Your task to perform on an android device: clear all cookies in the chrome app Image 0: 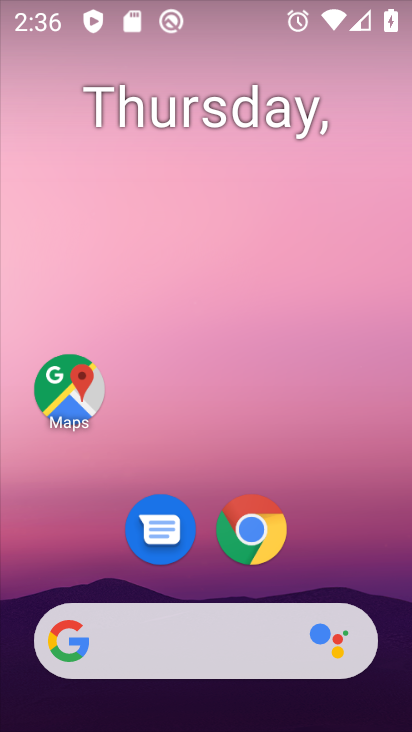
Step 0: click (237, 535)
Your task to perform on an android device: clear all cookies in the chrome app Image 1: 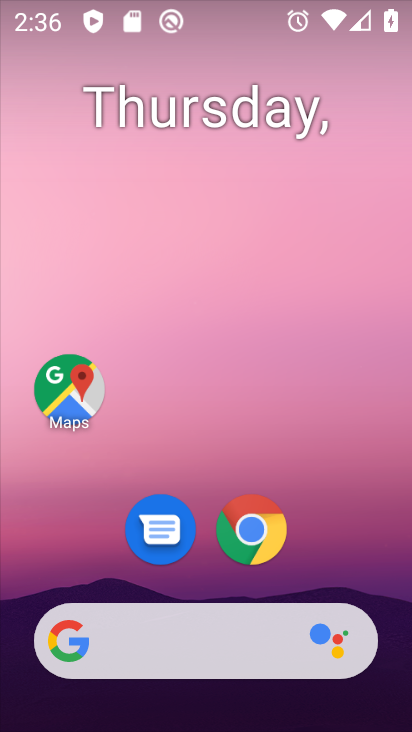
Step 1: click (237, 535)
Your task to perform on an android device: clear all cookies in the chrome app Image 2: 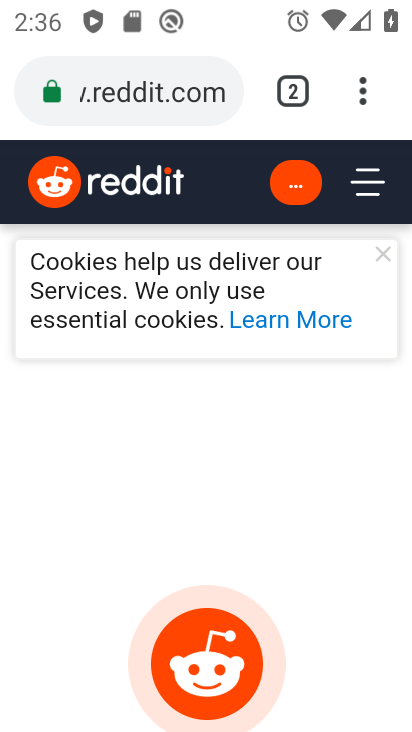
Step 2: click (361, 86)
Your task to perform on an android device: clear all cookies in the chrome app Image 3: 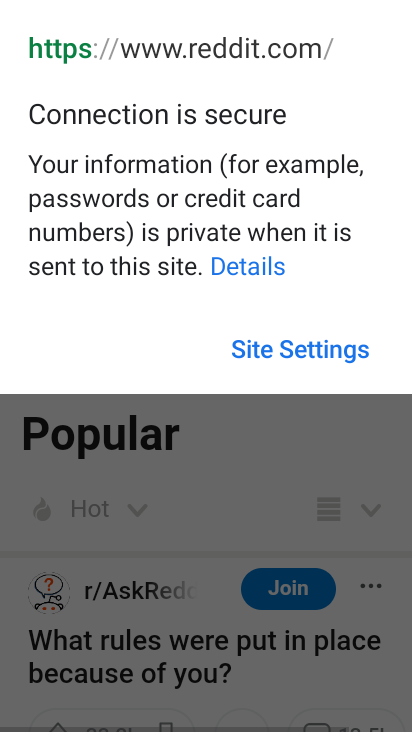
Step 3: click (307, 476)
Your task to perform on an android device: clear all cookies in the chrome app Image 4: 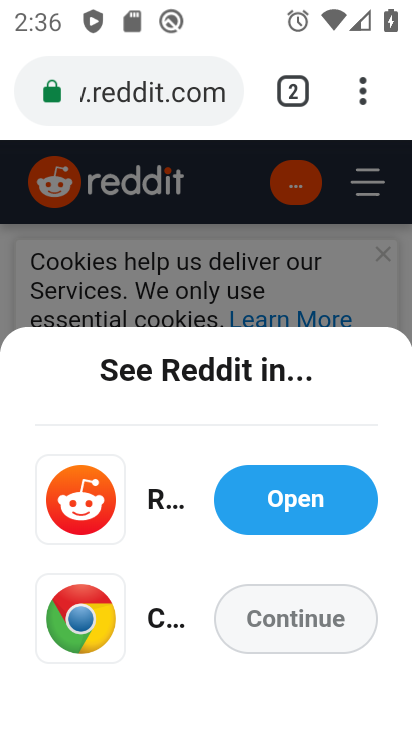
Step 4: click (371, 86)
Your task to perform on an android device: clear all cookies in the chrome app Image 5: 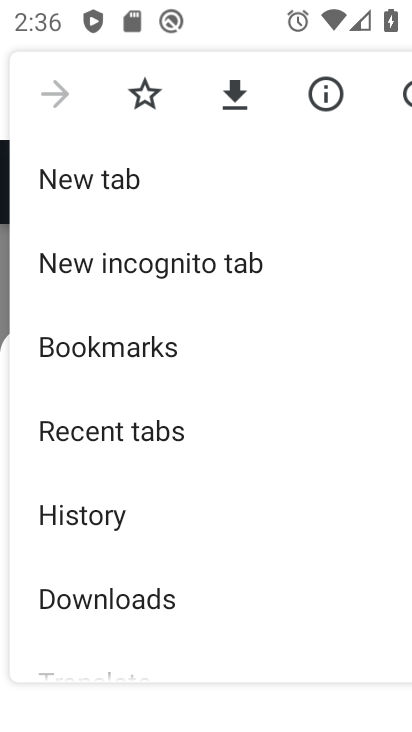
Step 5: drag from (195, 588) to (253, 139)
Your task to perform on an android device: clear all cookies in the chrome app Image 6: 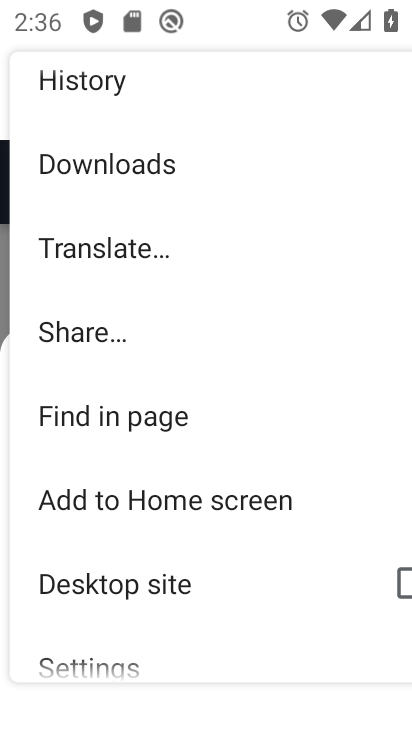
Step 6: drag from (240, 173) to (252, 629)
Your task to perform on an android device: clear all cookies in the chrome app Image 7: 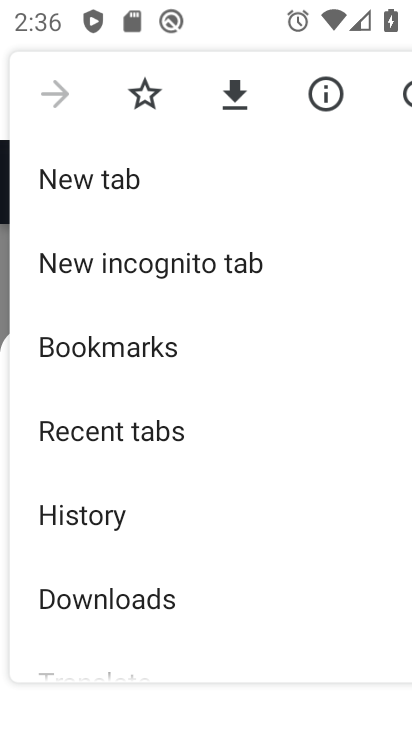
Step 7: drag from (252, 629) to (285, 20)
Your task to perform on an android device: clear all cookies in the chrome app Image 8: 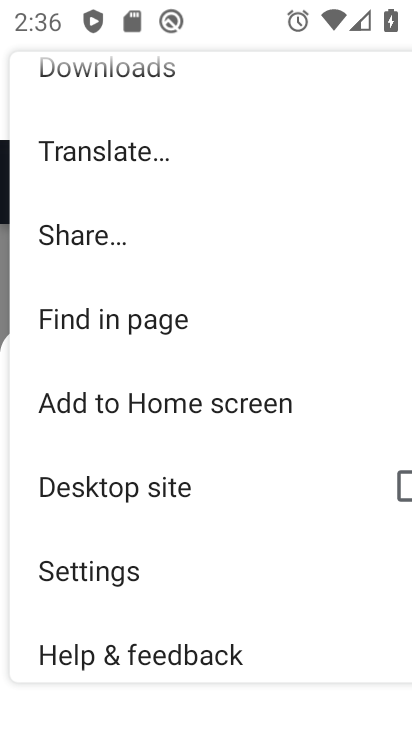
Step 8: click (131, 570)
Your task to perform on an android device: clear all cookies in the chrome app Image 9: 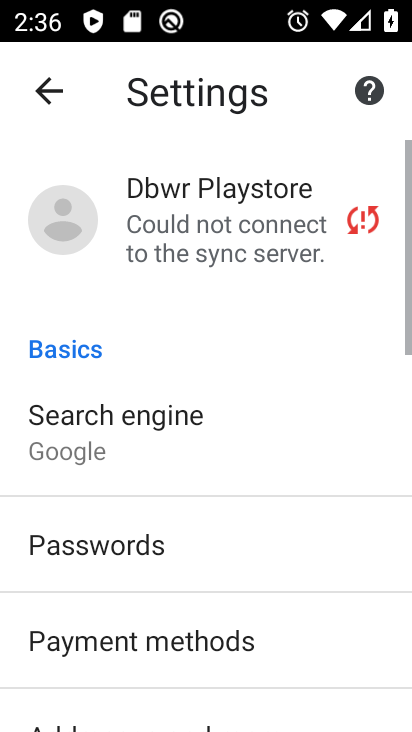
Step 9: drag from (176, 629) to (166, 34)
Your task to perform on an android device: clear all cookies in the chrome app Image 10: 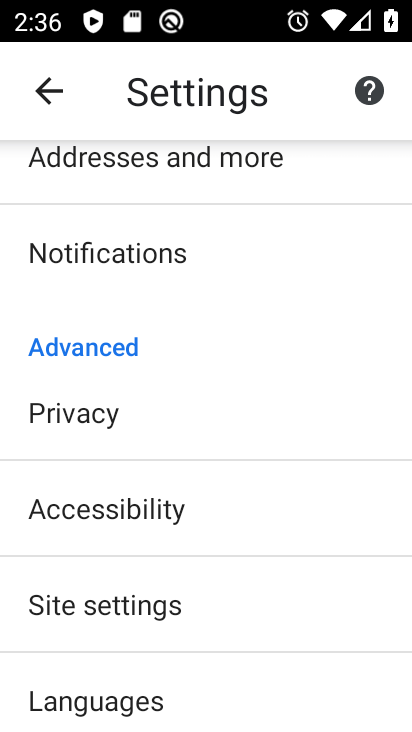
Step 10: click (112, 606)
Your task to perform on an android device: clear all cookies in the chrome app Image 11: 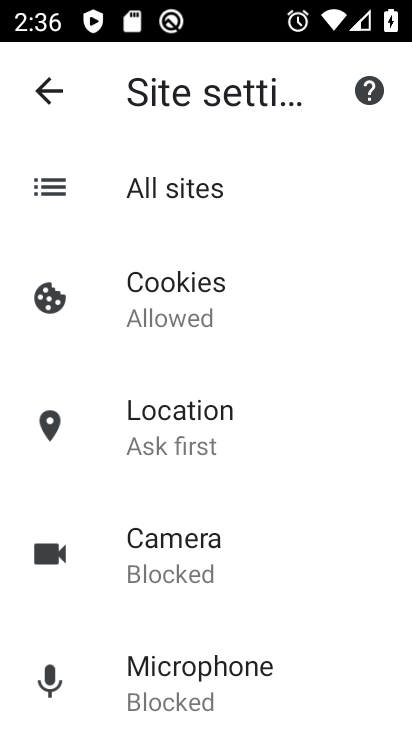
Step 11: click (204, 306)
Your task to perform on an android device: clear all cookies in the chrome app Image 12: 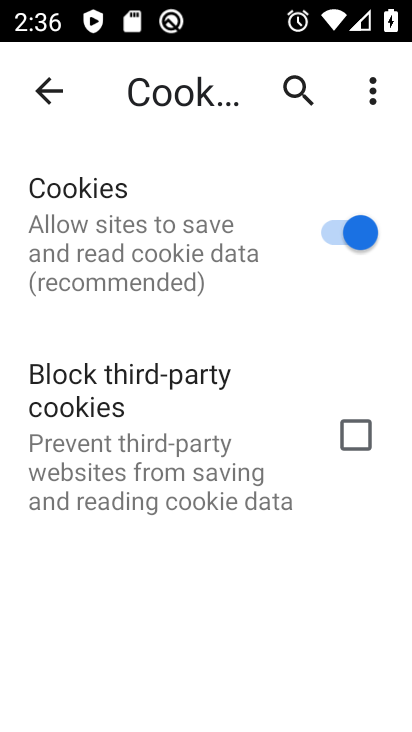
Step 12: task complete